Your task to perform on an android device: open the mobile data screen to see how much data has been used Image 0: 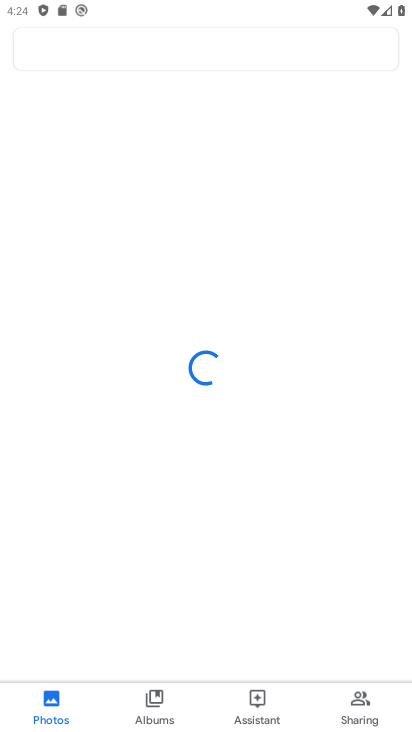
Step 0: press home button
Your task to perform on an android device: open the mobile data screen to see how much data has been used Image 1: 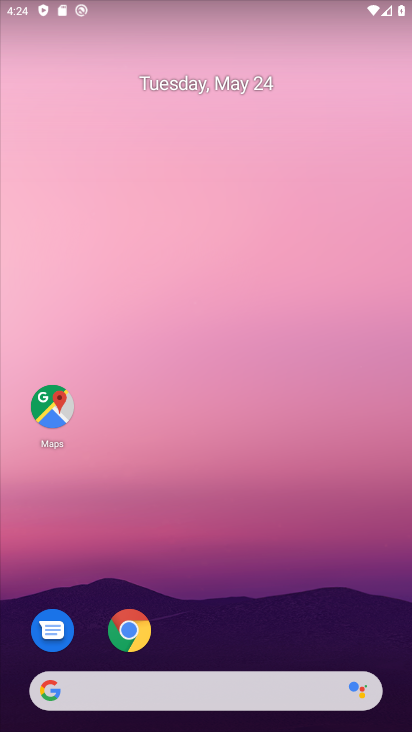
Step 1: drag from (203, 615) to (280, 215)
Your task to perform on an android device: open the mobile data screen to see how much data has been used Image 2: 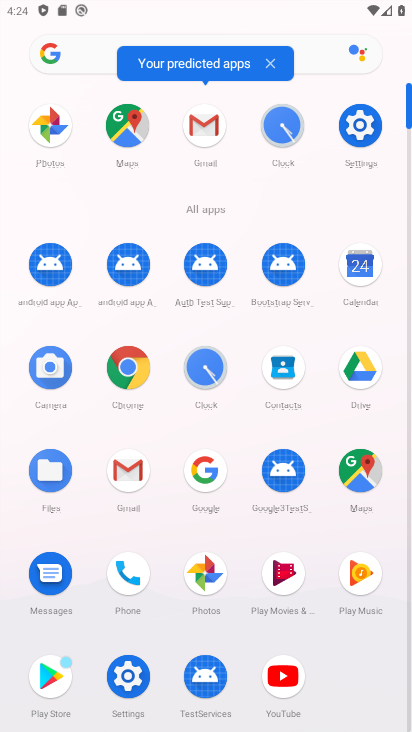
Step 2: click (137, 689)
Your task to perform on an android device: open the mobile data screen to see how much data has been used Image 3: 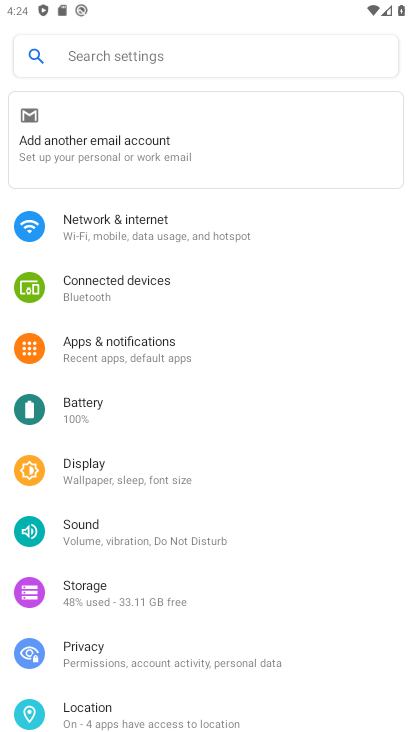
Step 3: click (192, 228)
Your task to perform on an android device: open the mobile data screen to see how much data has been used Image 4: 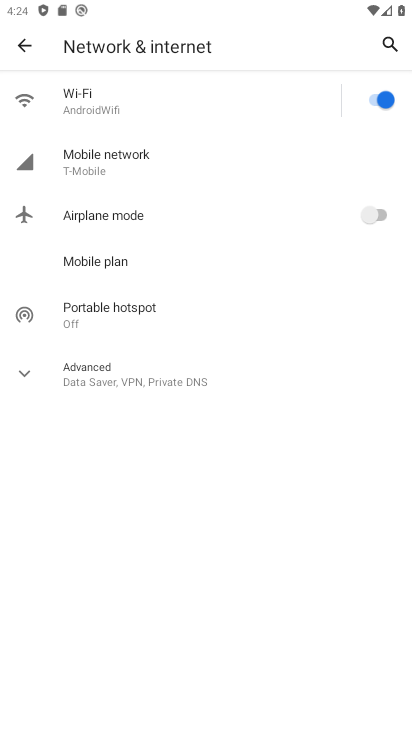
Step 4: click (211, 171)
Your task to perform on an android device: open the mobile data screen to see how much data has been used Image 5: 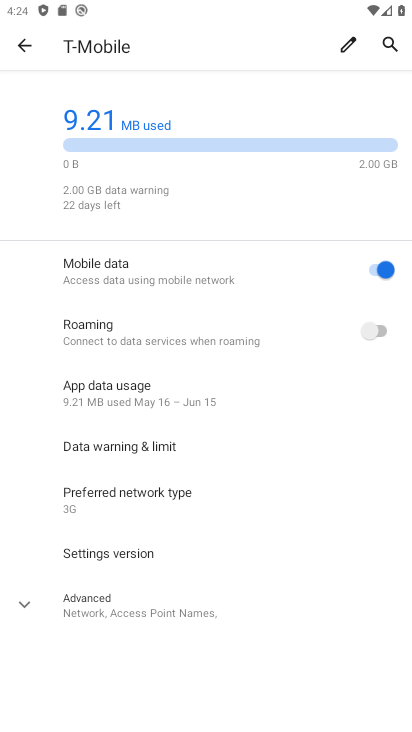
Step 5: task complete